Your task to perform on an android device: turn on airplane mode Image 0: 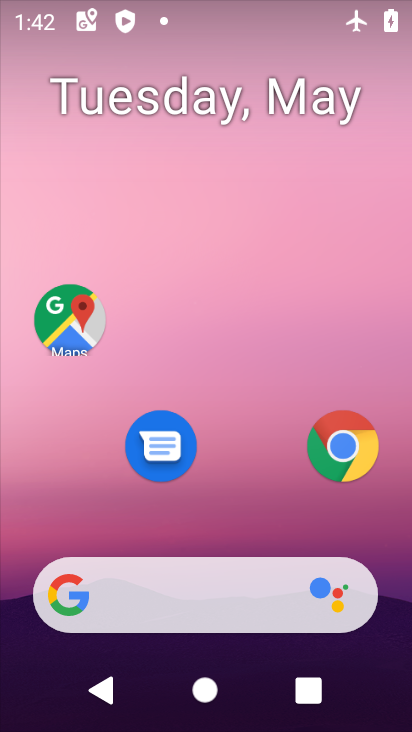
Step 0: drag from (251, 549) to (140, 21)
Your task to perform on an android device: turn on airplane mode Image 1: 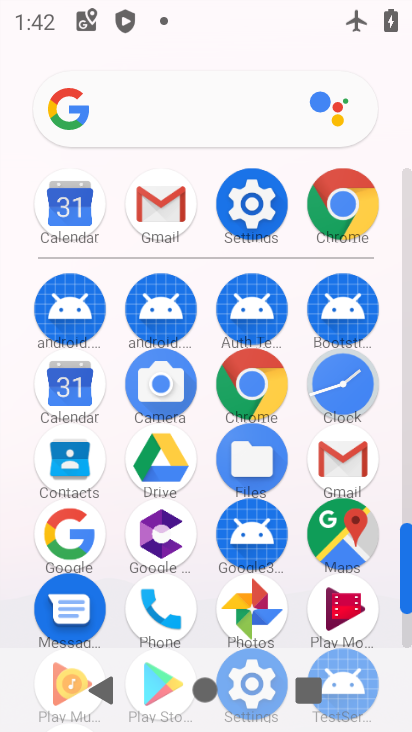
Step 1: click (253, 205)
Your task to perform on an android device: turn on airplane mode Image 2: 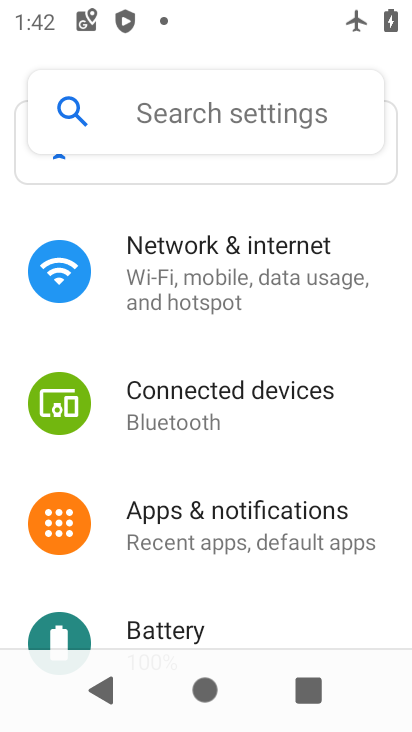
Step 2: click (199, 263)
Your task to perform on an android device: turn on airplane mode Image 3: 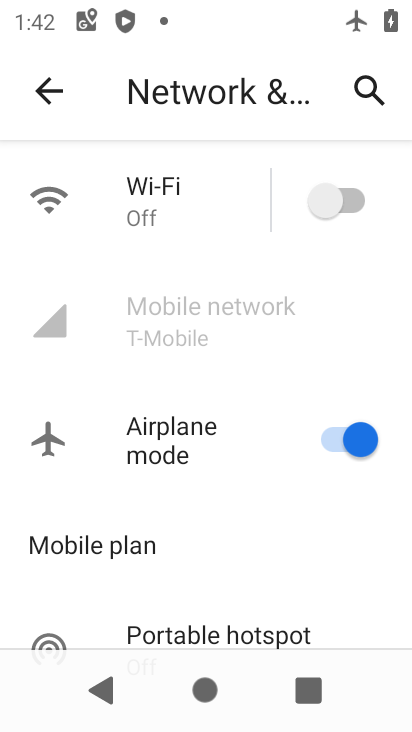
Step 3: task complete